Your task to perform on an android device: turn off translation in the chrome app Image 0: 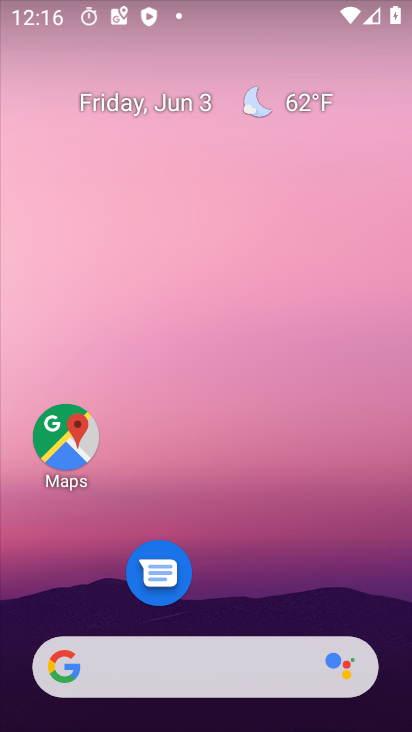
Step 0: drag from (347, 666) to (294, 174)
Your task to perform on an android device: turn off translation in the chrome app Image 1: 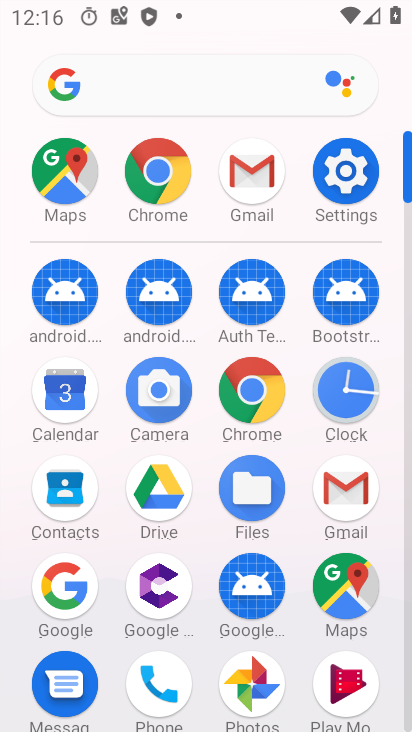
Step 1: click (256, 397)
Your task to perform on an android device: turn off translation in the chrome app Image 2: 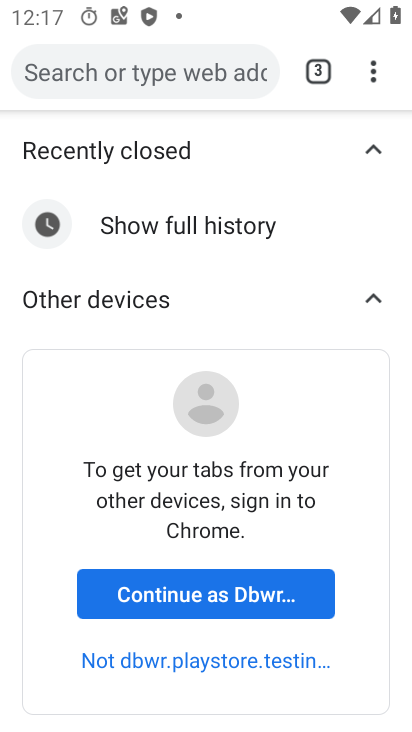
Step 2: click (371, 61)
Your task to perform on an android device: turn off translation in the chrome app Image 3: 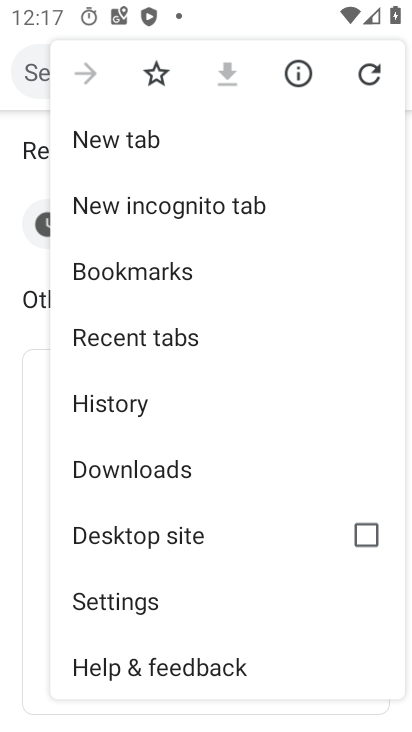
Step 3: click (287, 652)
Your task to perform on an android device: turn off translation in the chrome app Image 4: 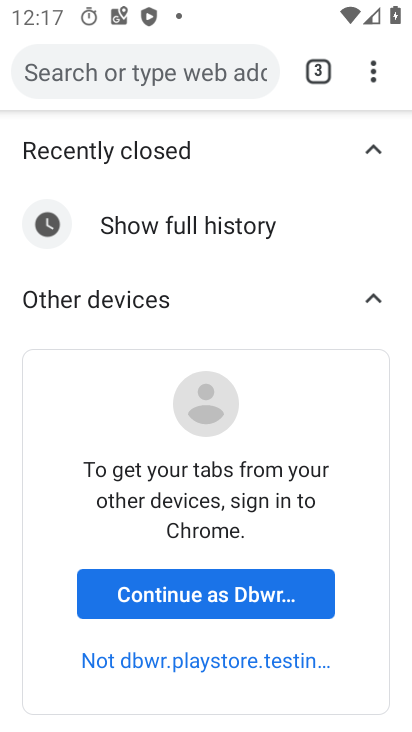
Step 4: click (281, 618)
Your task to perform on an android device: turn off translation in the chrome app Image 5: 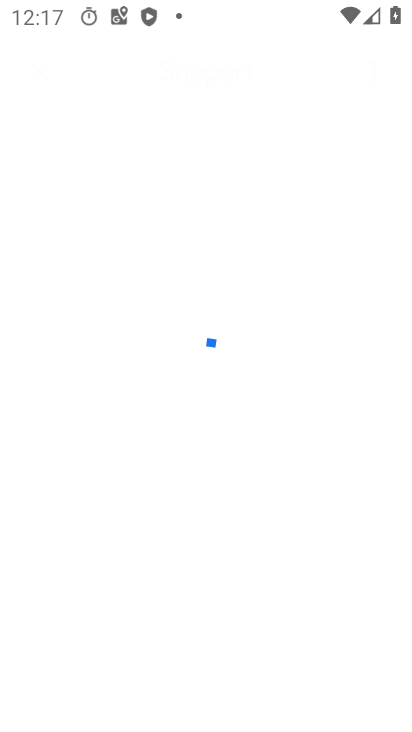
Step 5: press back button
Your task to perform on an android device: turn off translation in the chrome app Image 6: 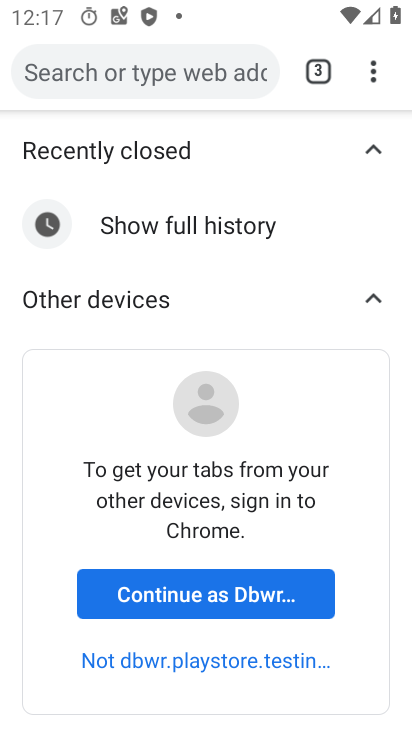
Step 6: click (376, 80)
Your task to perform on an android device: turn off translation in the chrome app Image 7: 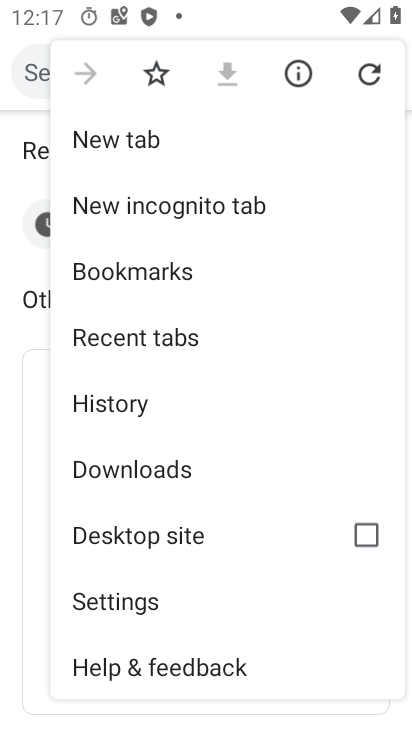
Step 7: click (185, 605)
Your task to perform on an android device: turn off translation in the chrome app Image 8: 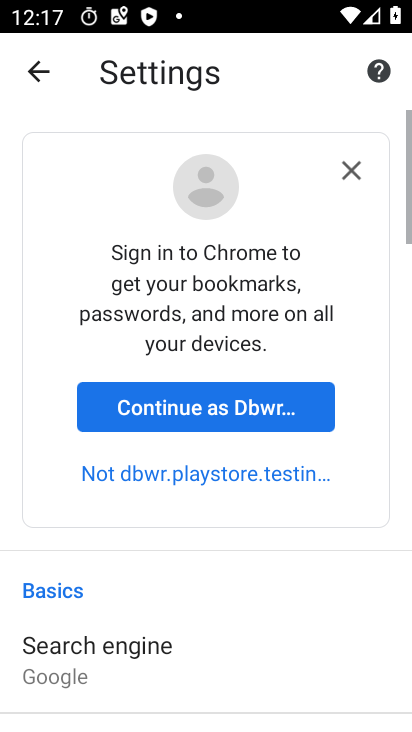
Step 8: drag from (212, 637) to (210, 172)
Your task to perform on an android device: turn off translation in the chrome app Image 9: 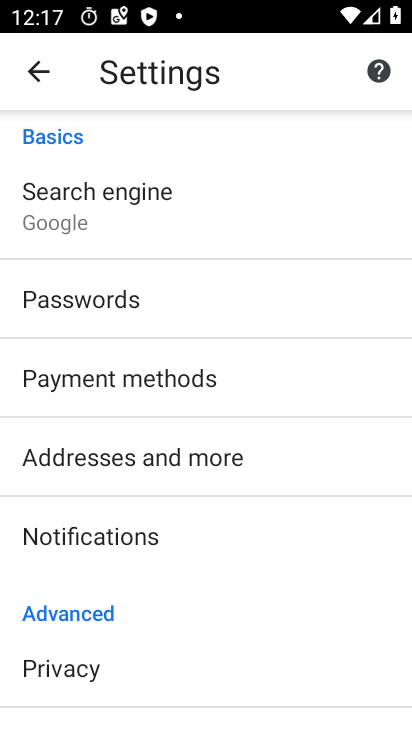
Step 9: drag from (98, 684) to (108, 399)
Your task to perform on an android device: turn off translation in the chrome app Image 10: 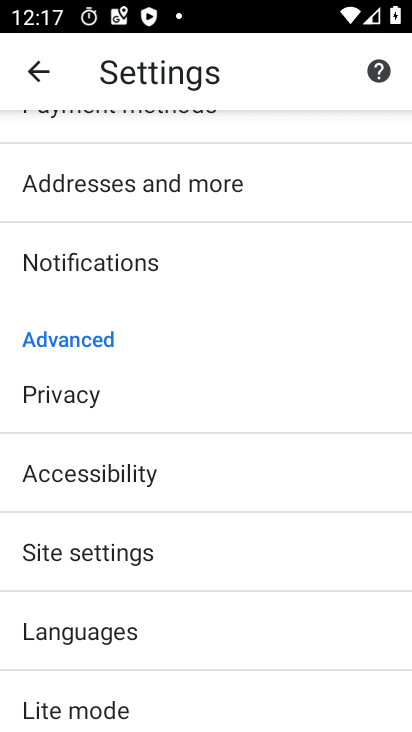
Step 10: click (95, 620)
Your task to perform on an android device: turn off translation in the chrome app Image 11: 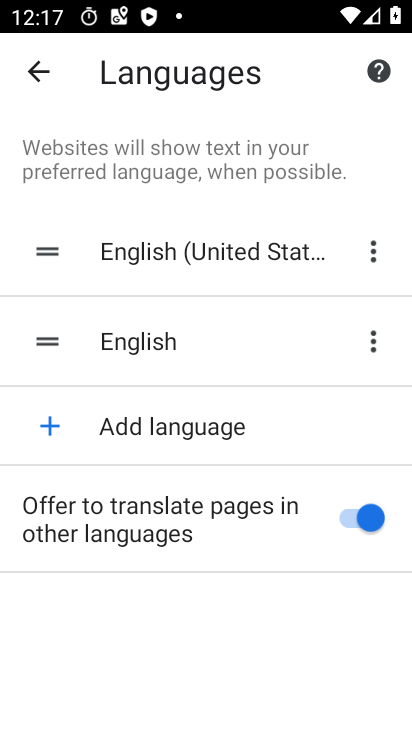
Step 11: click (337, 517)
Your task to perform on an android device: turn off translation in the chrome app Image 12: 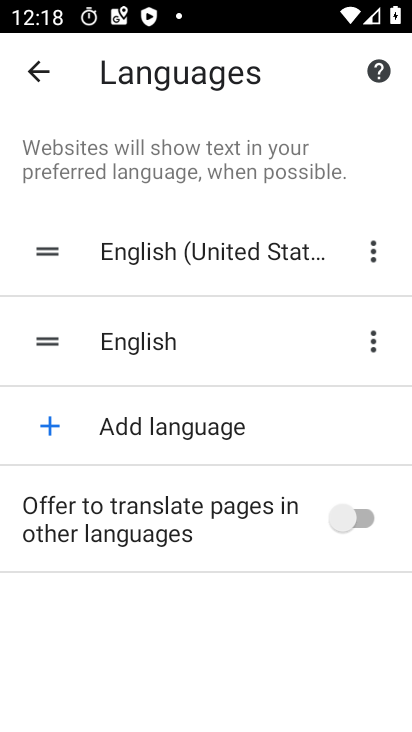
Step 12: task complete